Your task to perform on an android device: toggle improve location accuracy Image 0: 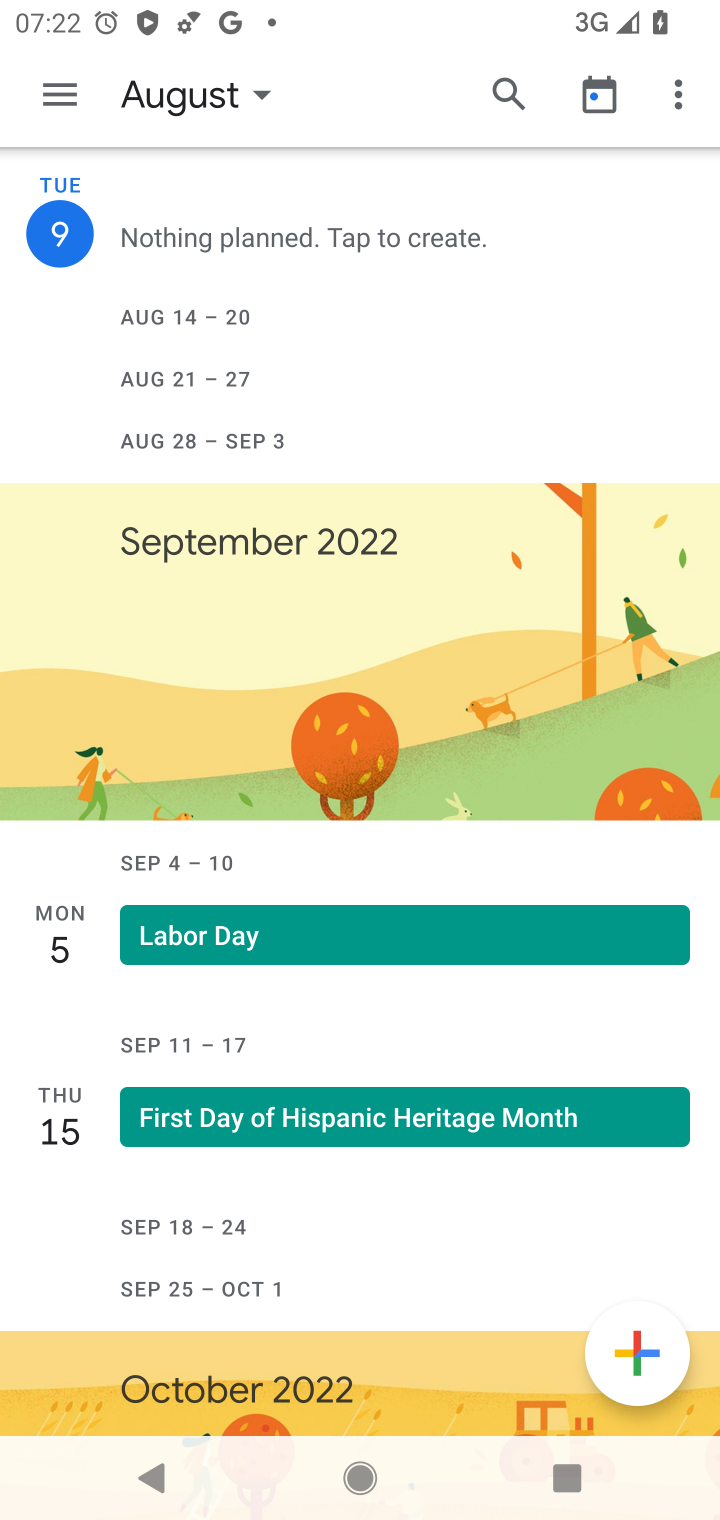
Step 0: press home button
Your task to perform on an android device: toggle improve location accuracy Image 1: 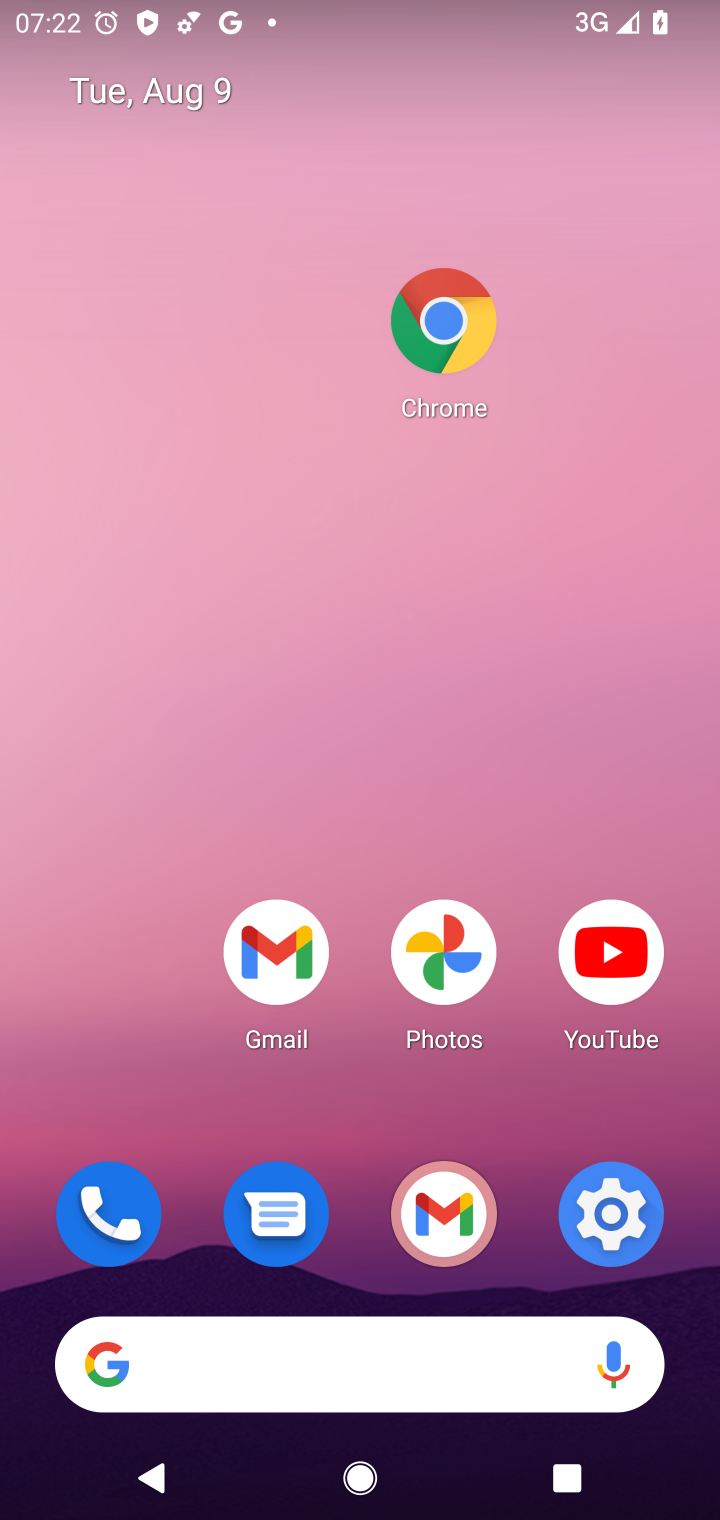
Step 1: click (592, 1238)
Your task to perform on an android device: toggle improve location accuracy Image 2: 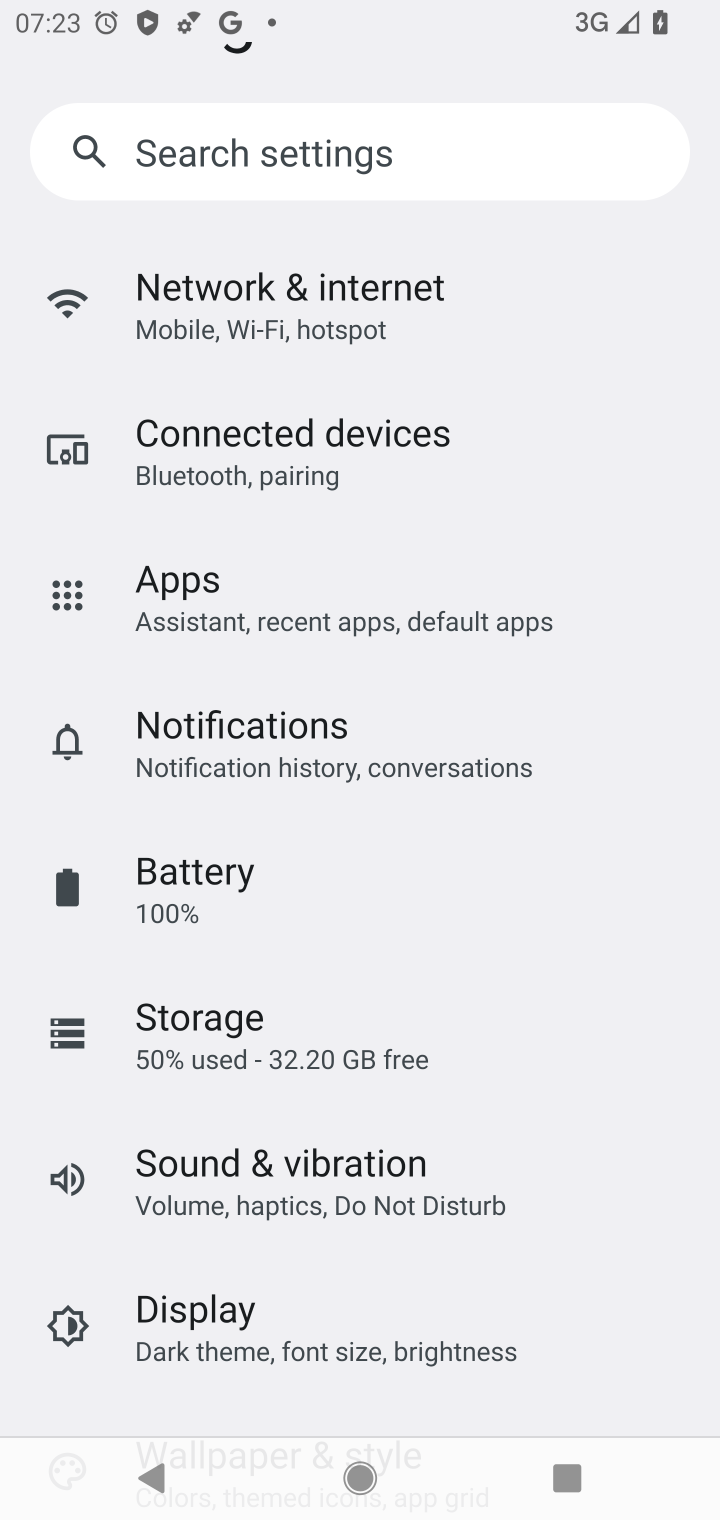
Step 2: click (250, 139)
Your task to perform on an android device: toggle improve location accuracy Image 3: 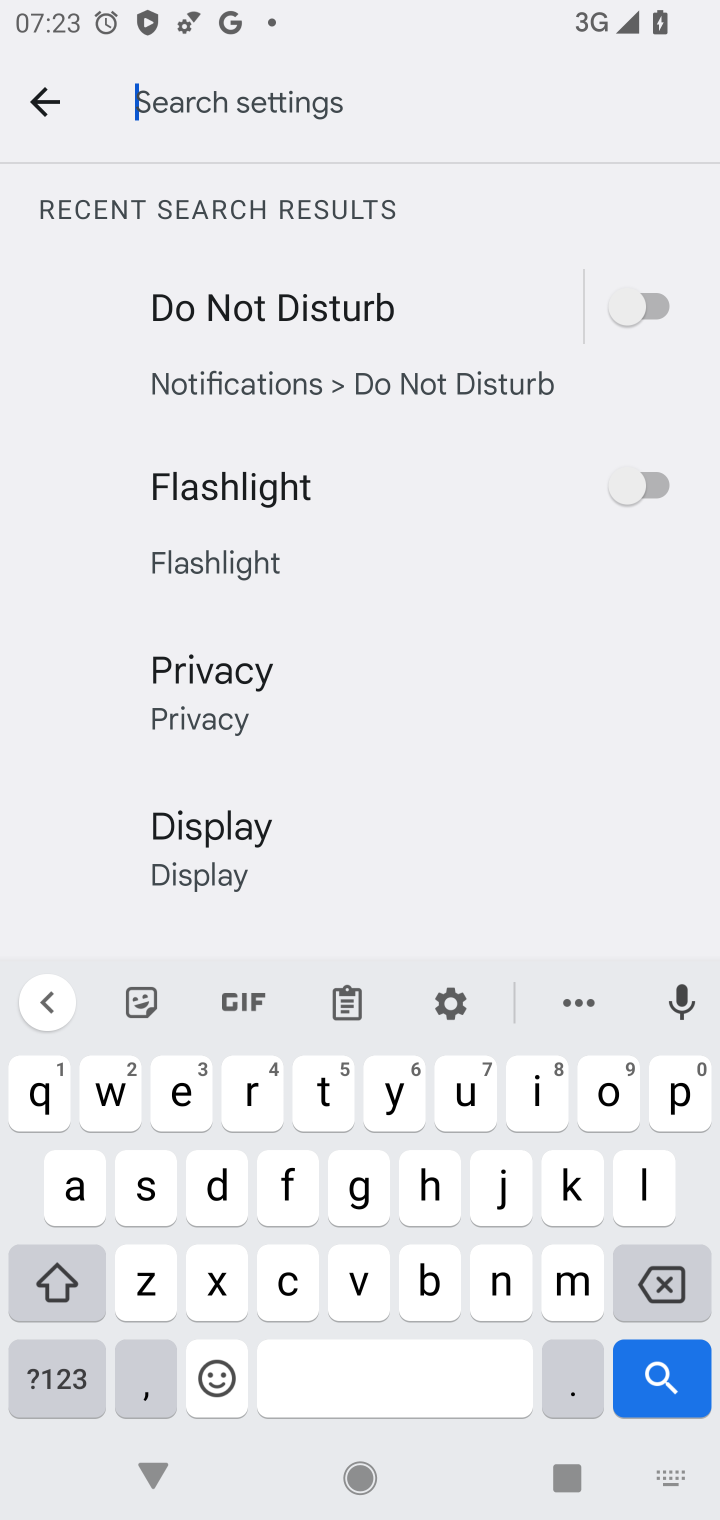
Step 3: click (659, 1179)
Your task to perform on an android device: toggle improve location accuracy Image 4: 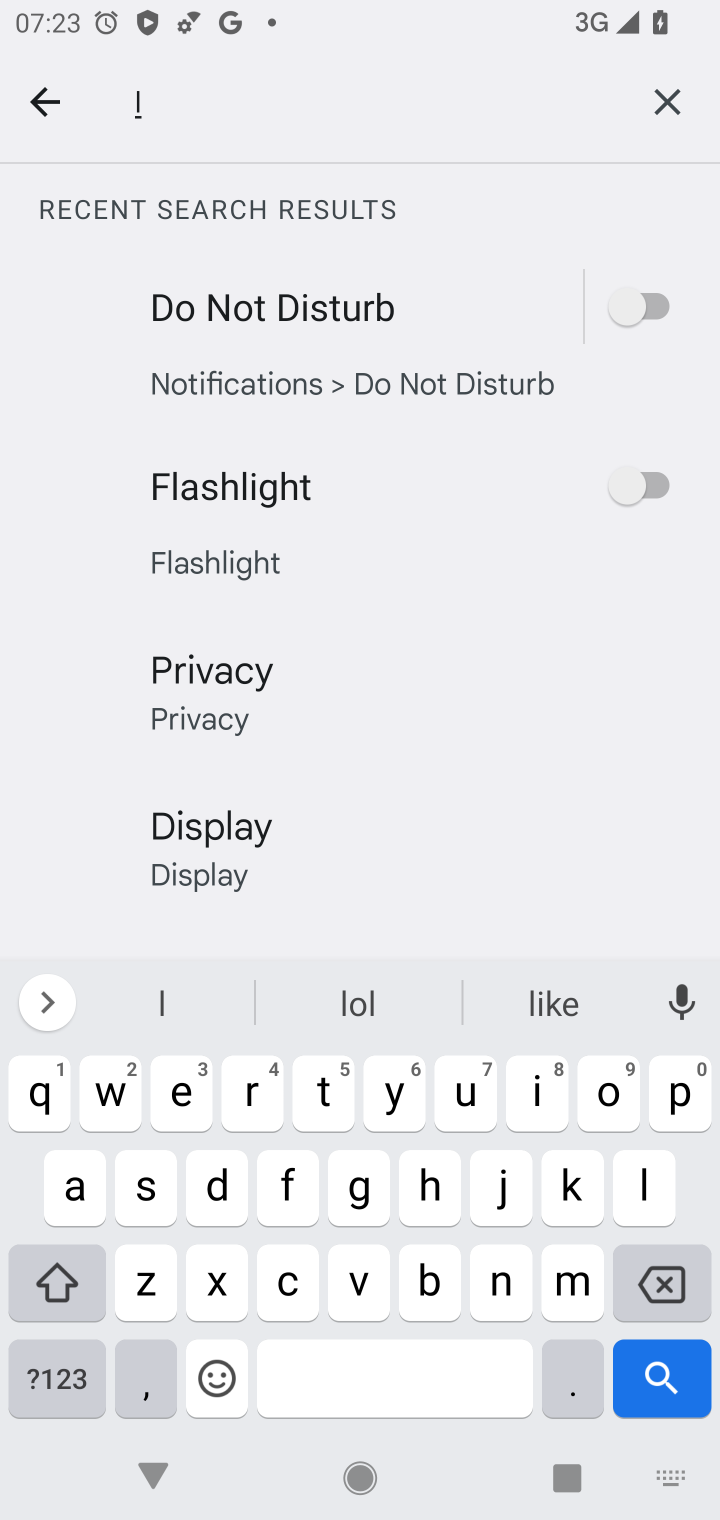
Step 4: click (596, 1085)
Your task to perform on an android device: toggle improve location accuracy Image 5: 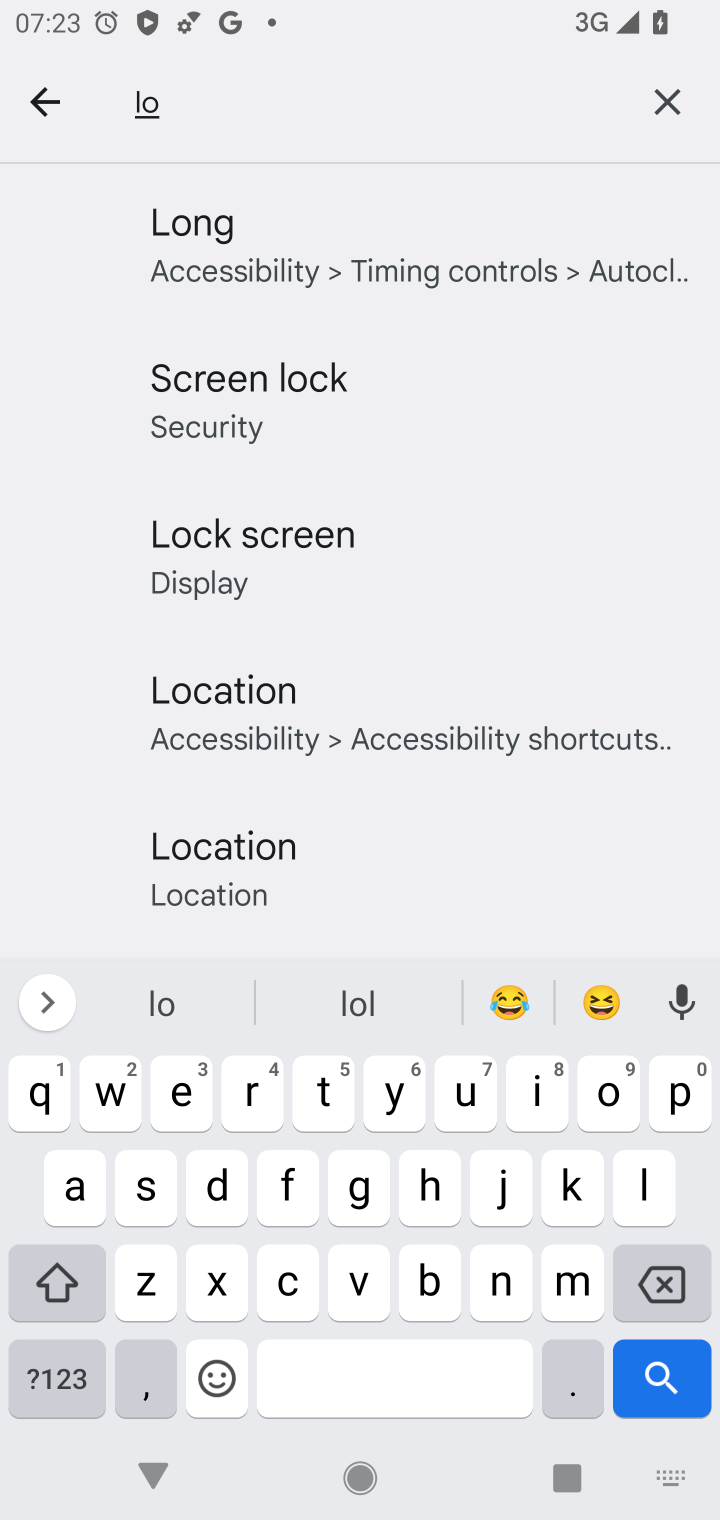
Step 5: click (272, 838)
Your task to perform on an android device: toggle improve location accuracy Image 6: 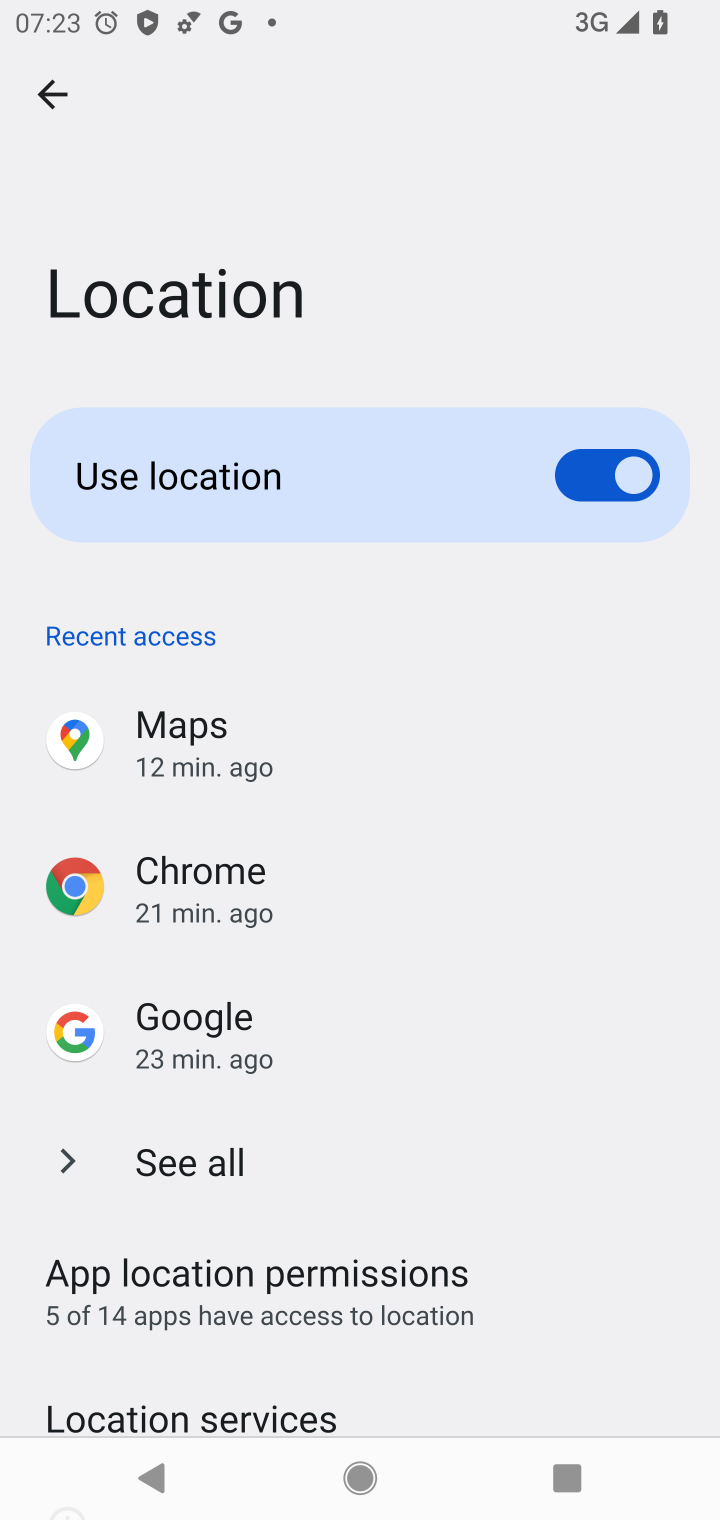
Step 6: drag from (365, 1200) to (350, 876)
Your task to perform on an android device: toggle improve location accuracy Image 7: 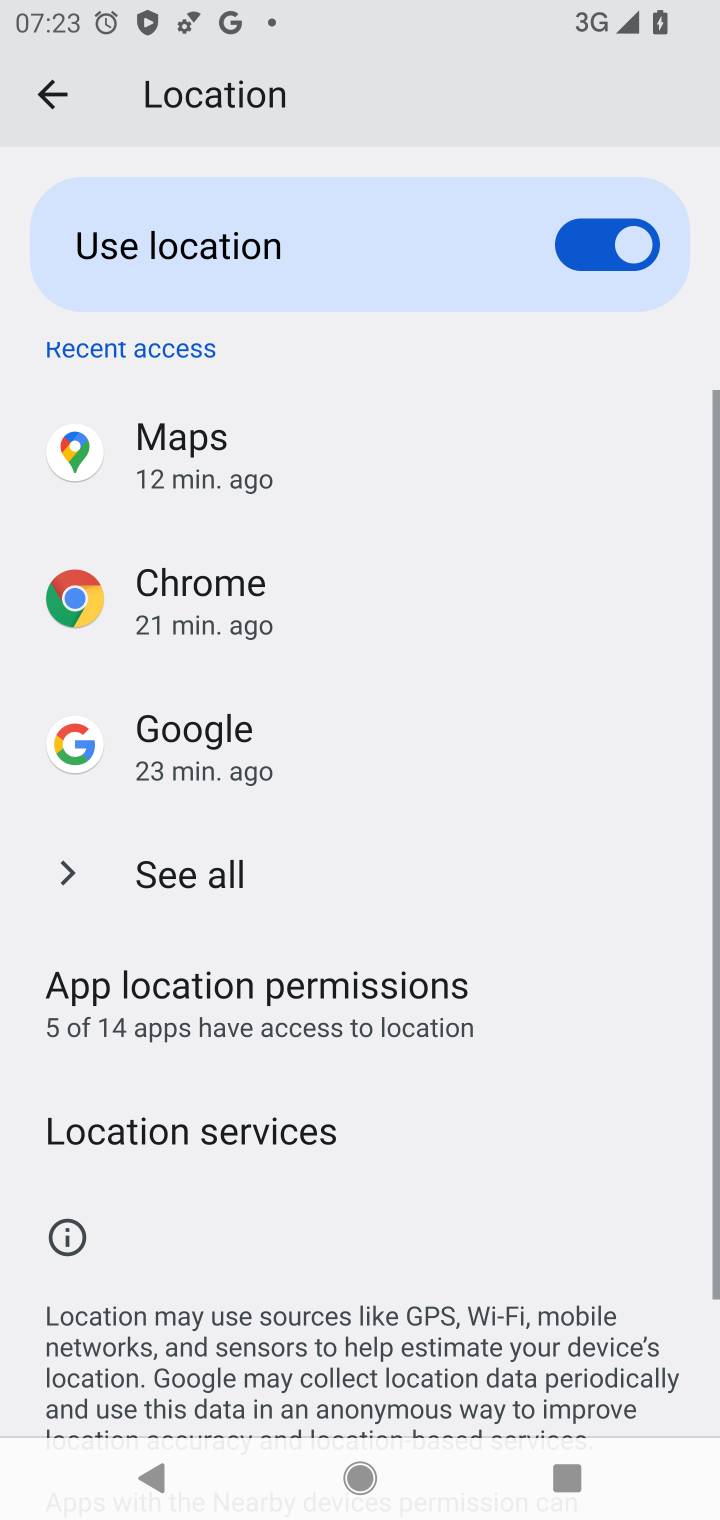
Step 7: click (258, 1210)
Your task to perform on an android device: toggle improve location accuracy Image 8: 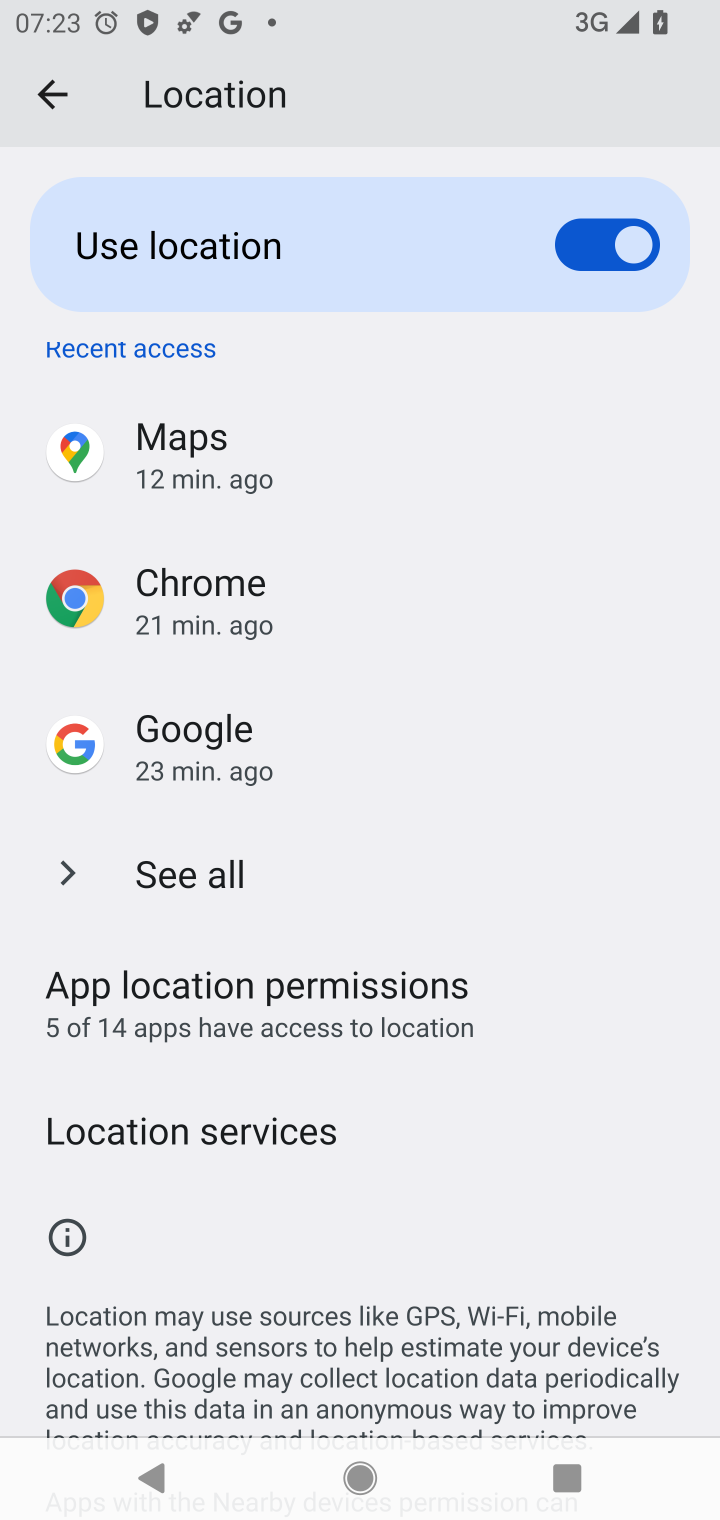
Step 8: click (275, 1111)
Your task to perform on an android device: toggle improve location accuracy Image 9: 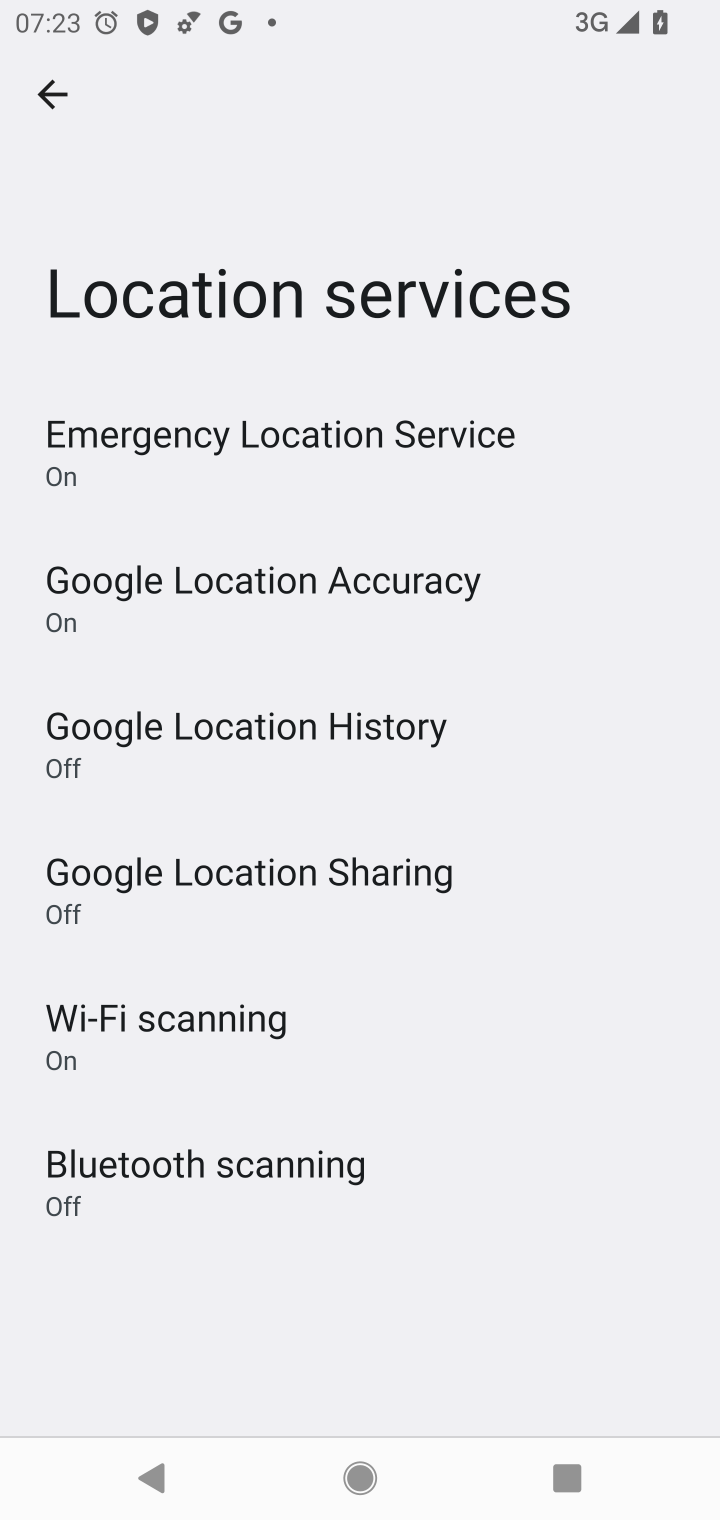
Step 9: click (281, 569)
Your task to perform on an android device: toggle improve location accuracy Image 10: 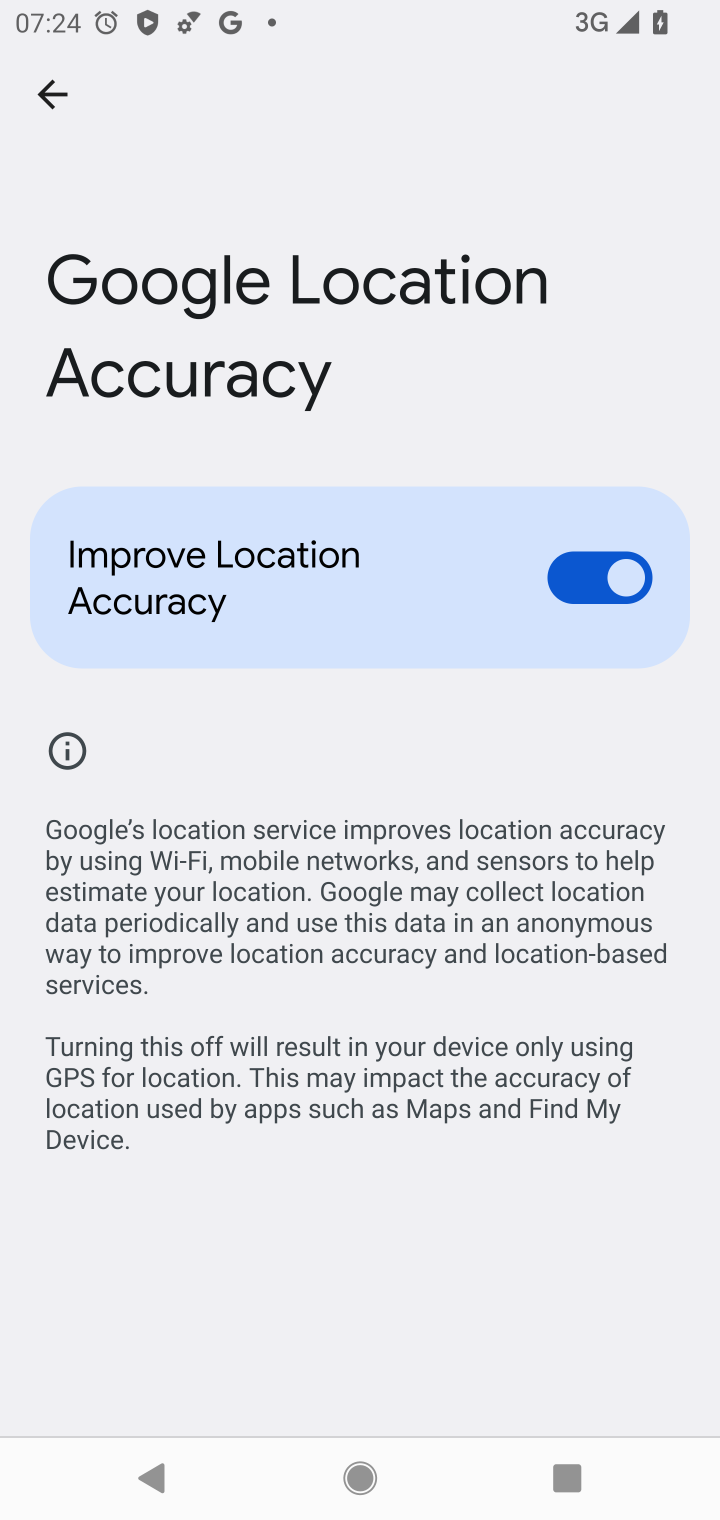
Step 10: task complete